Your task to perform on an android device: Open sound settings Image 0: 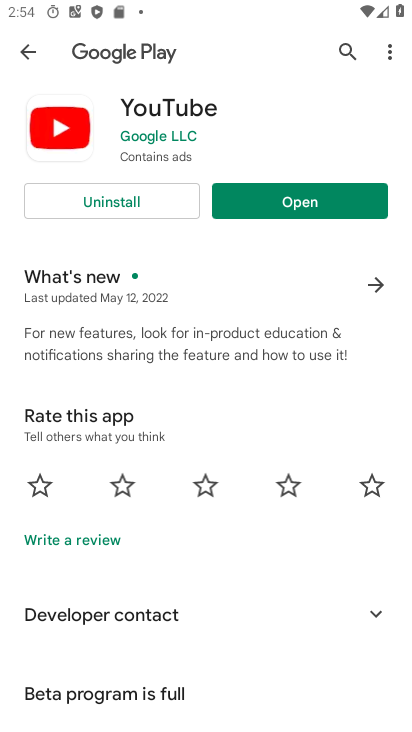
Step 0: press home button
Your task to perform on an android device: Open sound settings Image 1: 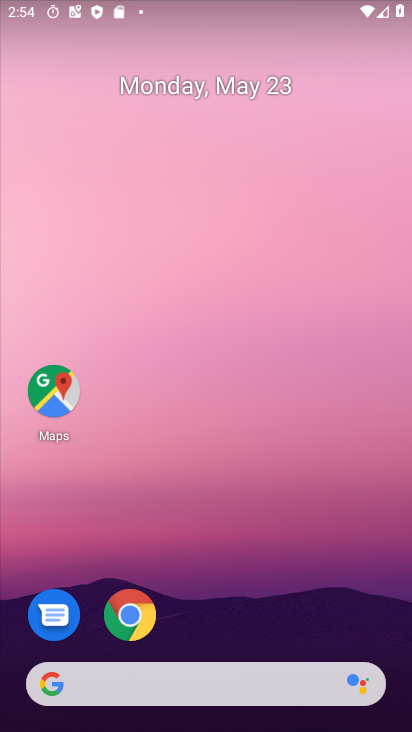
Step 1: drag from (251, 643) to (326, 11)
Your task to perform on an android device: Open sound settings Image 2: 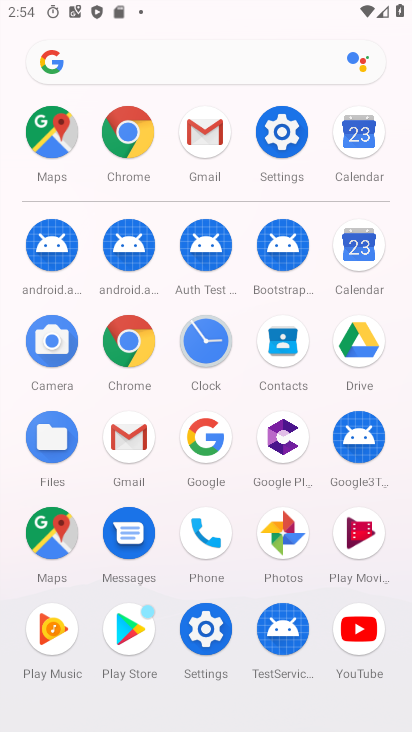
Step 2: click (282, 138)
Your task to perform on an android device: Open sound settings Image 3: 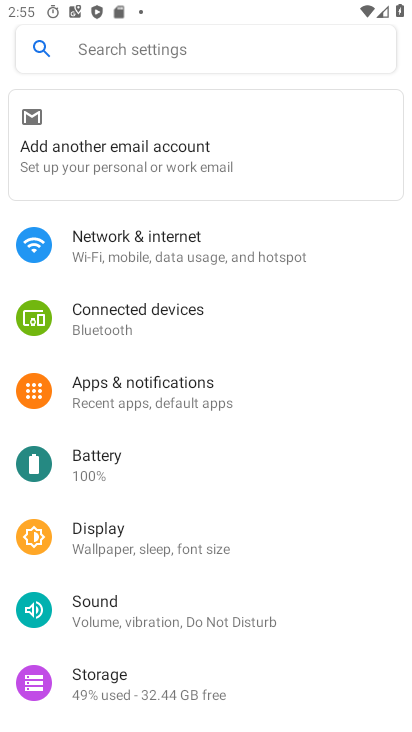
Step 3: click (90, 612)
Your task to perform on an android device: Open sound settings Image 4: 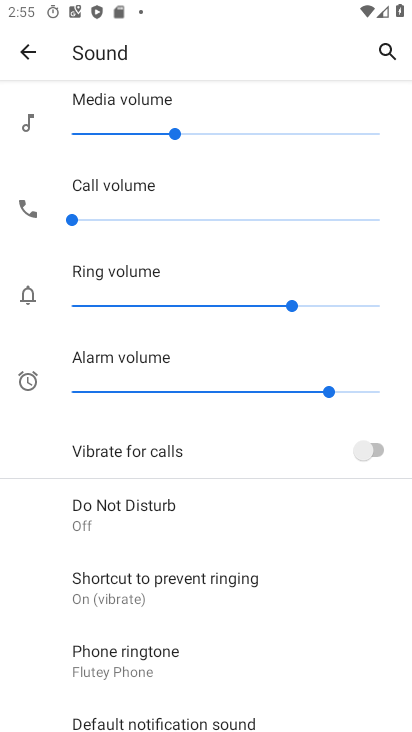
Step 4: task complete